Your task to perform on an android device: turn on translation in the chrome app Image 0: 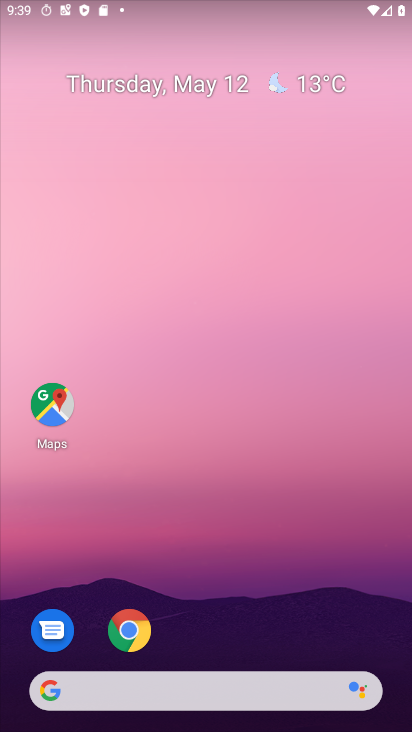
Step 0: click (120, 639)
Your task to perform on an android device: turn on translation in the chrome app Image 1: 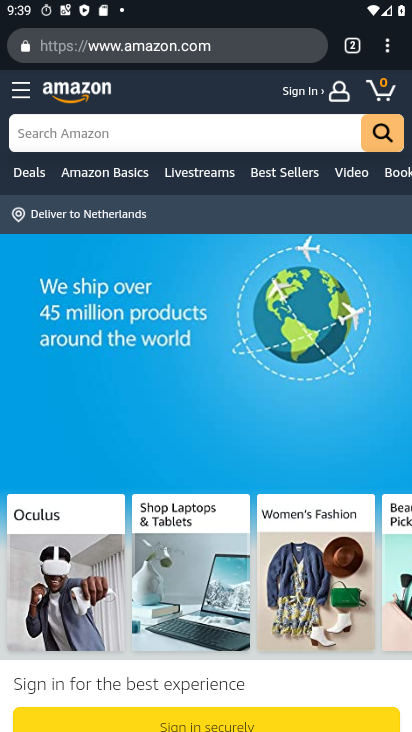
Step 1: drag from (393, 52) to (257, 589)
Your task to perform on an android device: turn on translation in the chrome app Image 2: 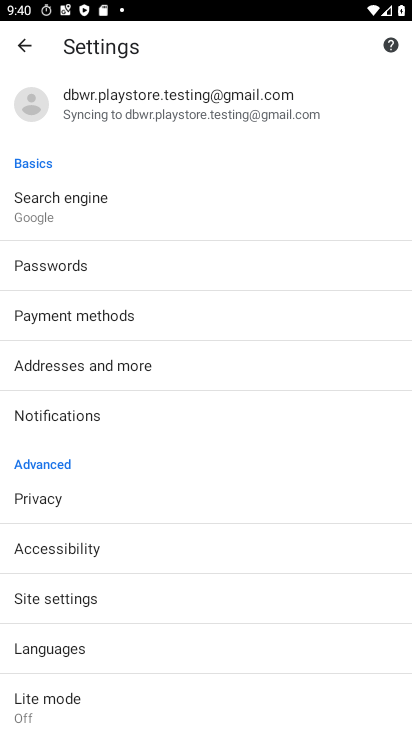
Step 2: click (68, 648)
Your task to perform on an android device: turn on translation in the chrome app Image 3: 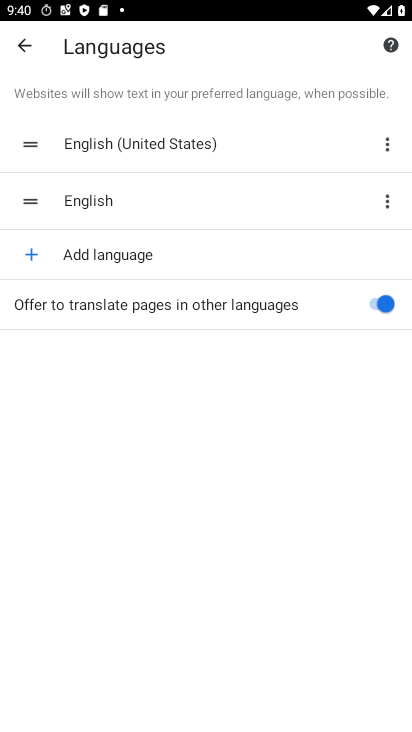
Step 3: task complete